Your task to perform on an android device: open app "LinkedIn" (install if not already installed) and go to login screen Image 0: 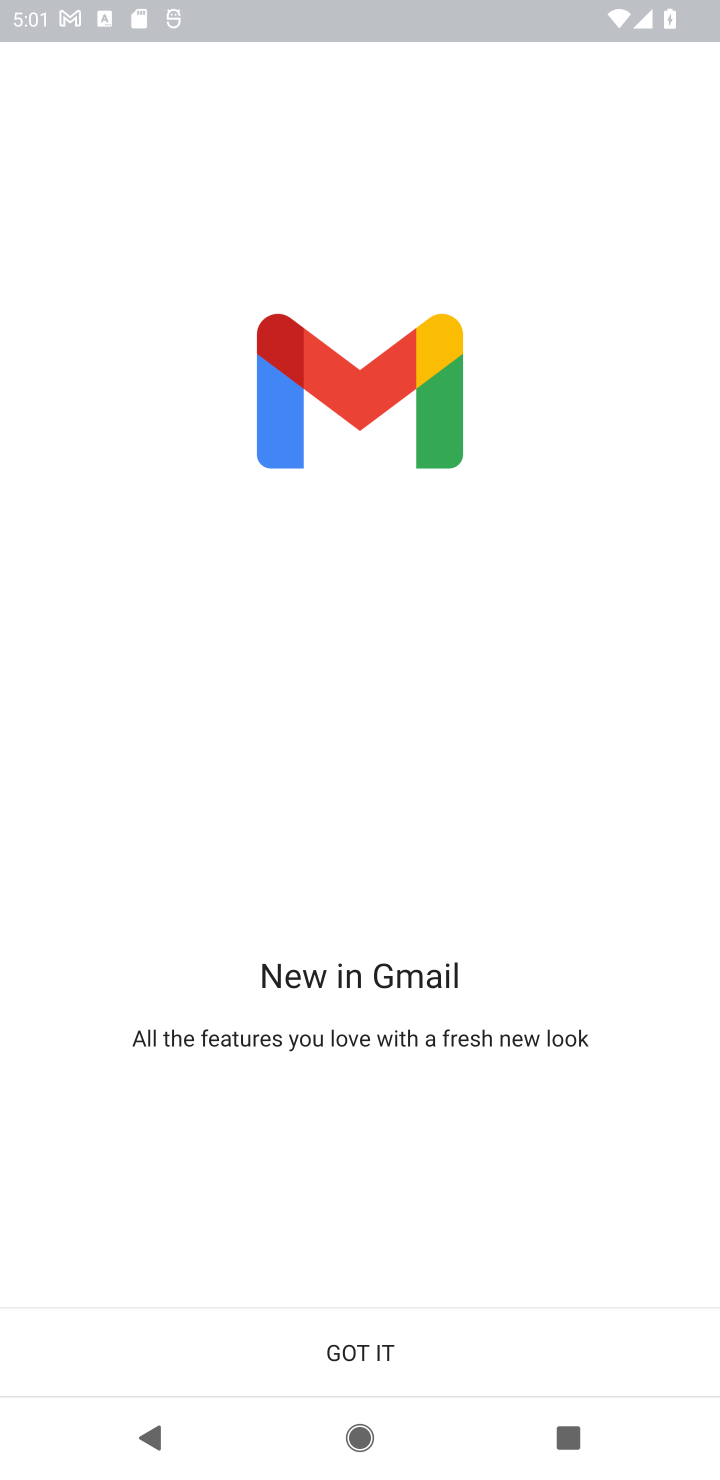
Step 0: press home button
Your task to perform on an android device: open app "LinkedIn" (install if not already installed) and go to login screen Image 1: 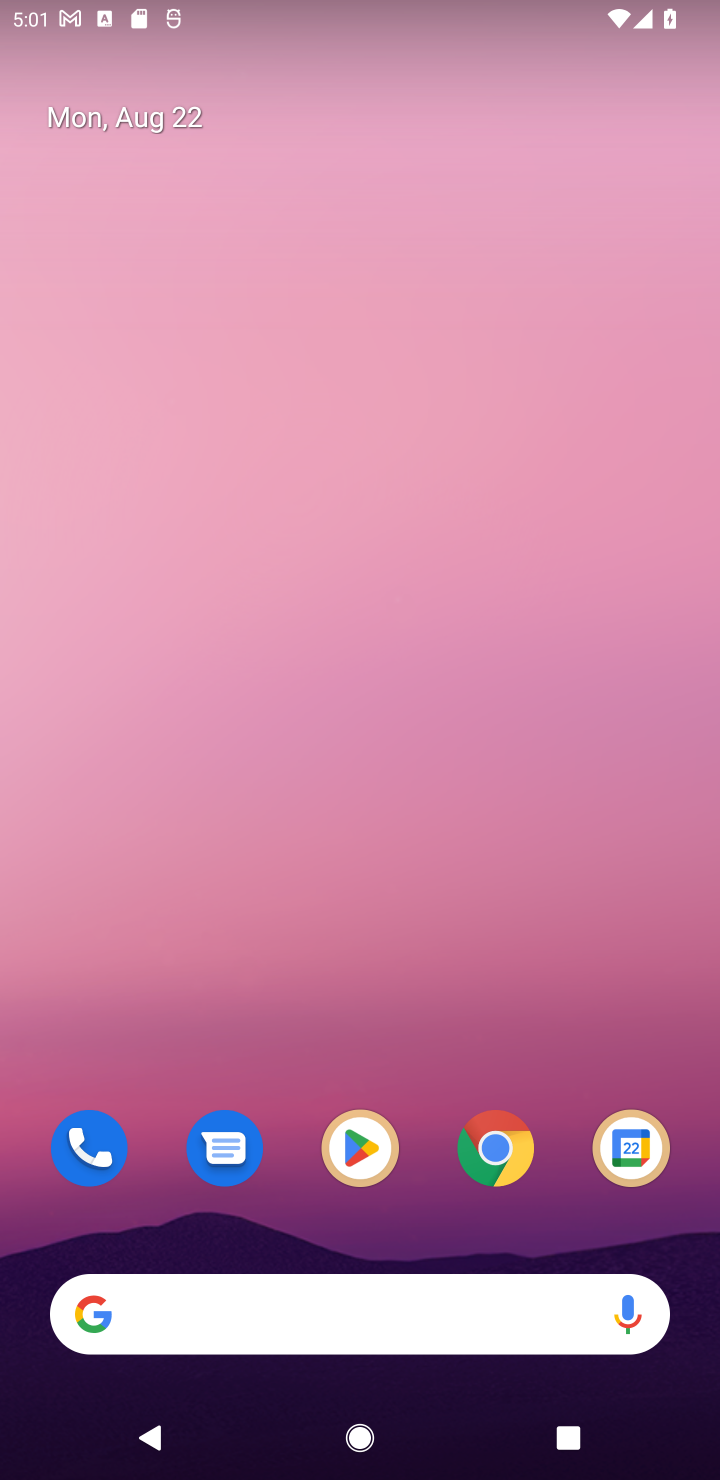
Step 1: click (359, 1162)
Your task to perform on an android device: open app "LinkedIn" (install if not already installed) and go to login screen Image 2: 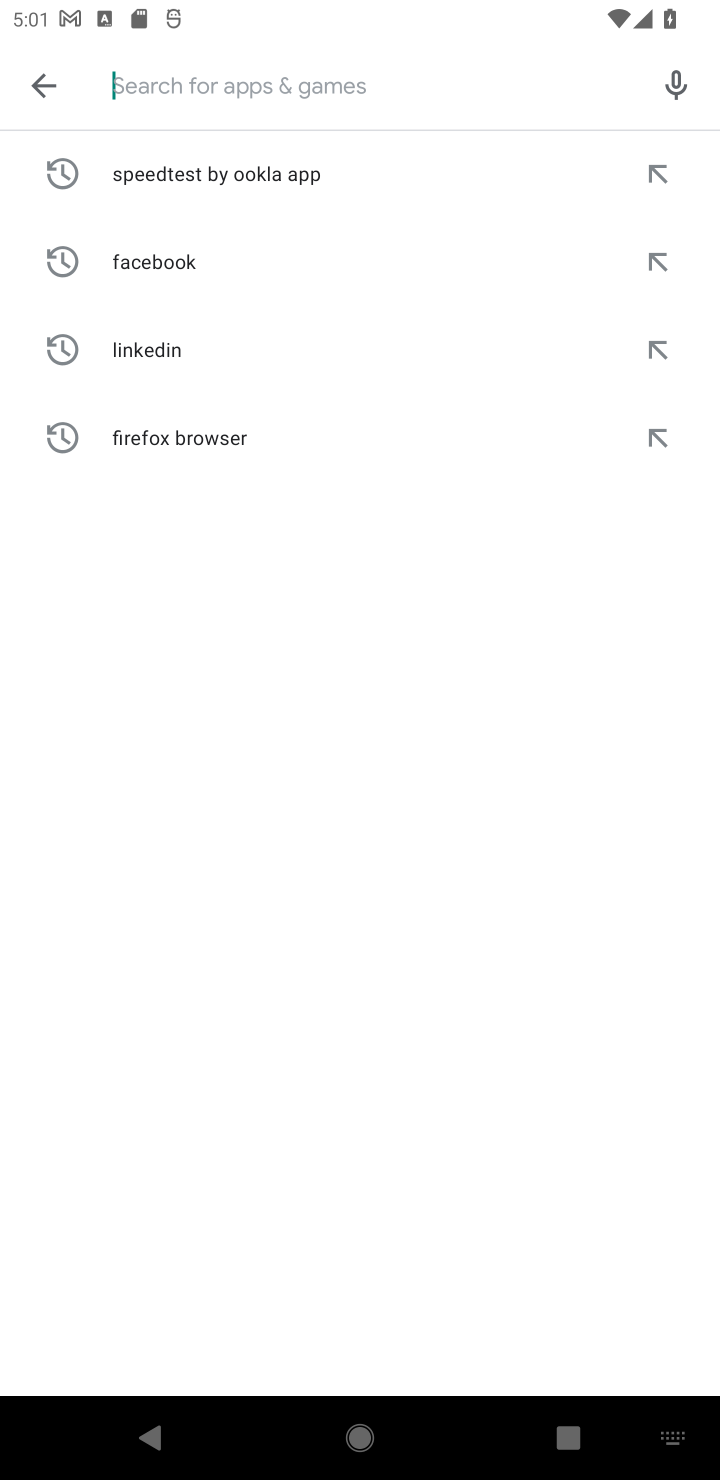
Step 2: type "Chime – Mobile Banking"
Your task to perform on an android device: open app "LinkedIn" (install if not already installed) and go to login screen Image 3: 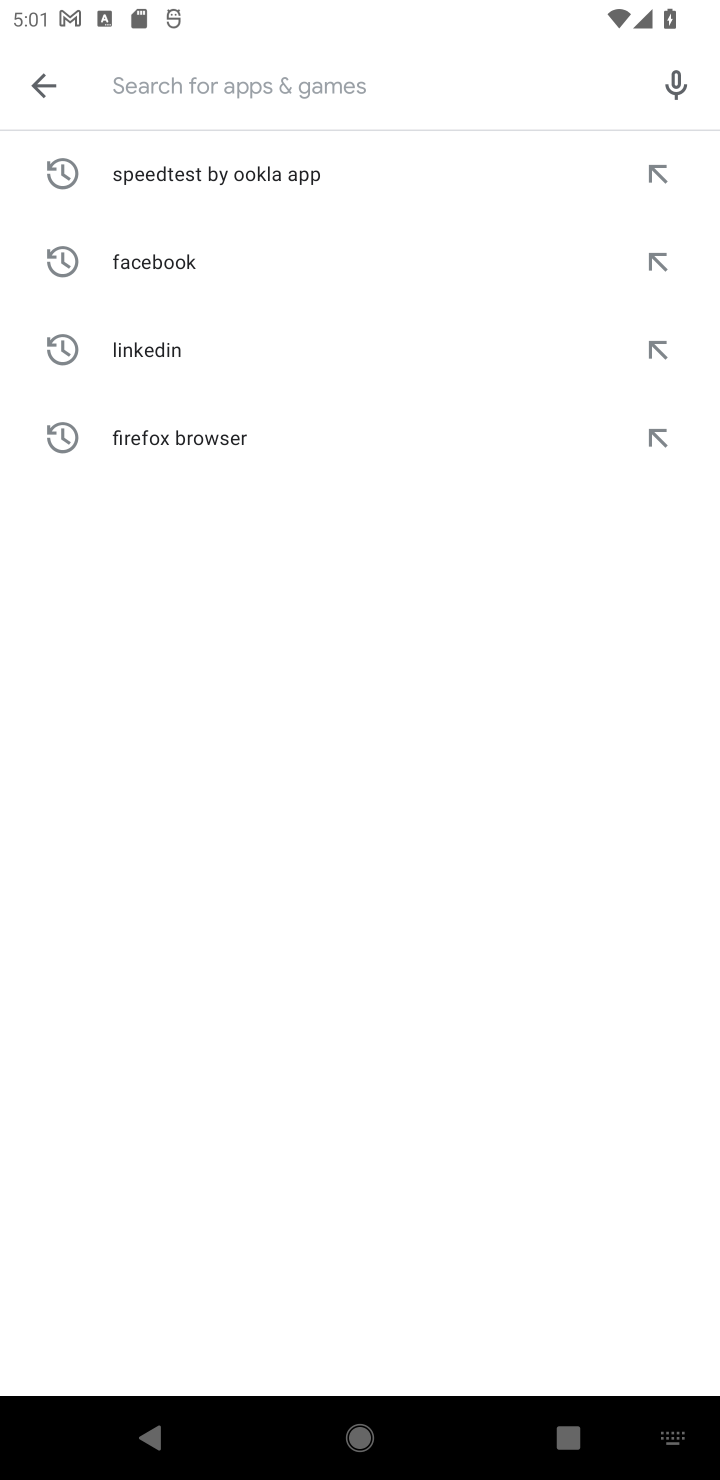
Step 3: click (243, 75)
Your task to perform on an android device: open app "LinkedIn" (install if not already installed) and go to login screen Image 4: 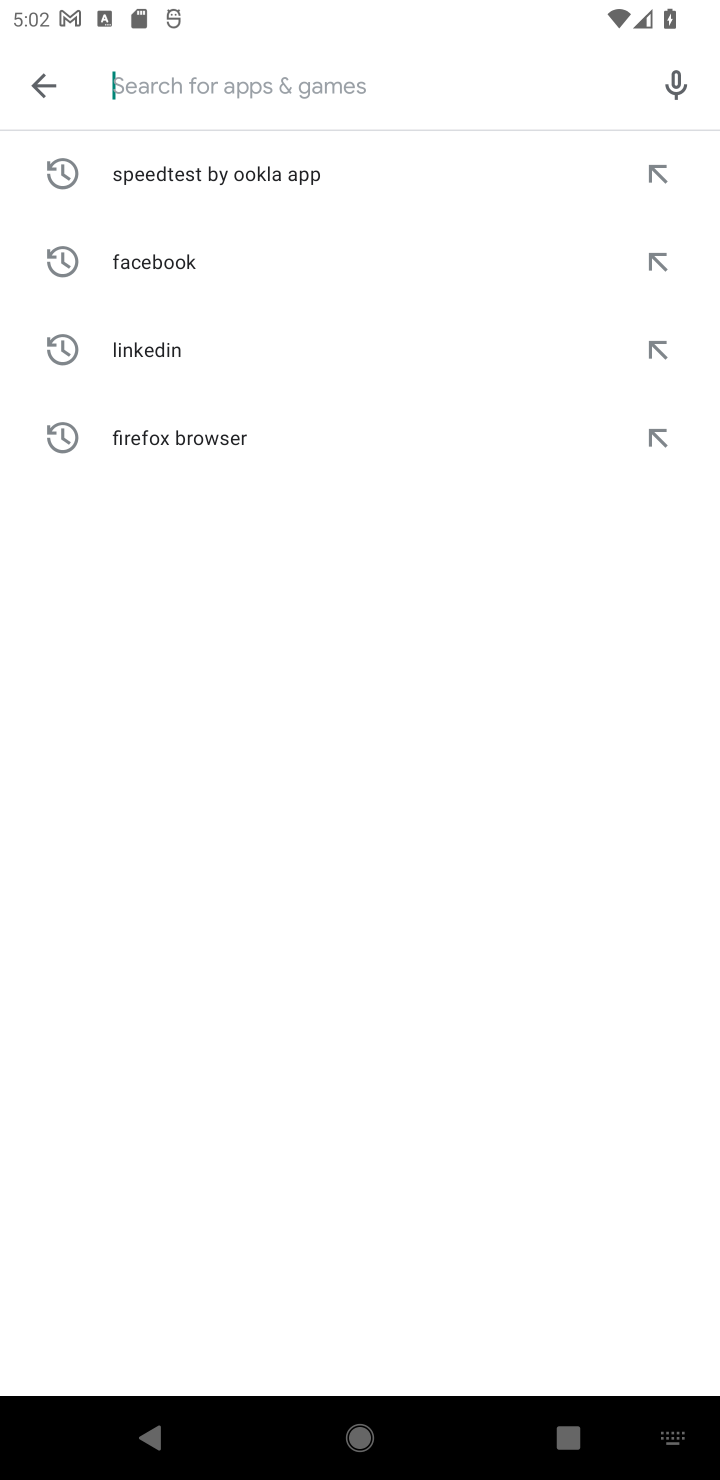
Step 4: type "Linkedin"
Your task to perform on an android device: open app "LinkedIn" (install if not already installed) and go to login screen Image 5: 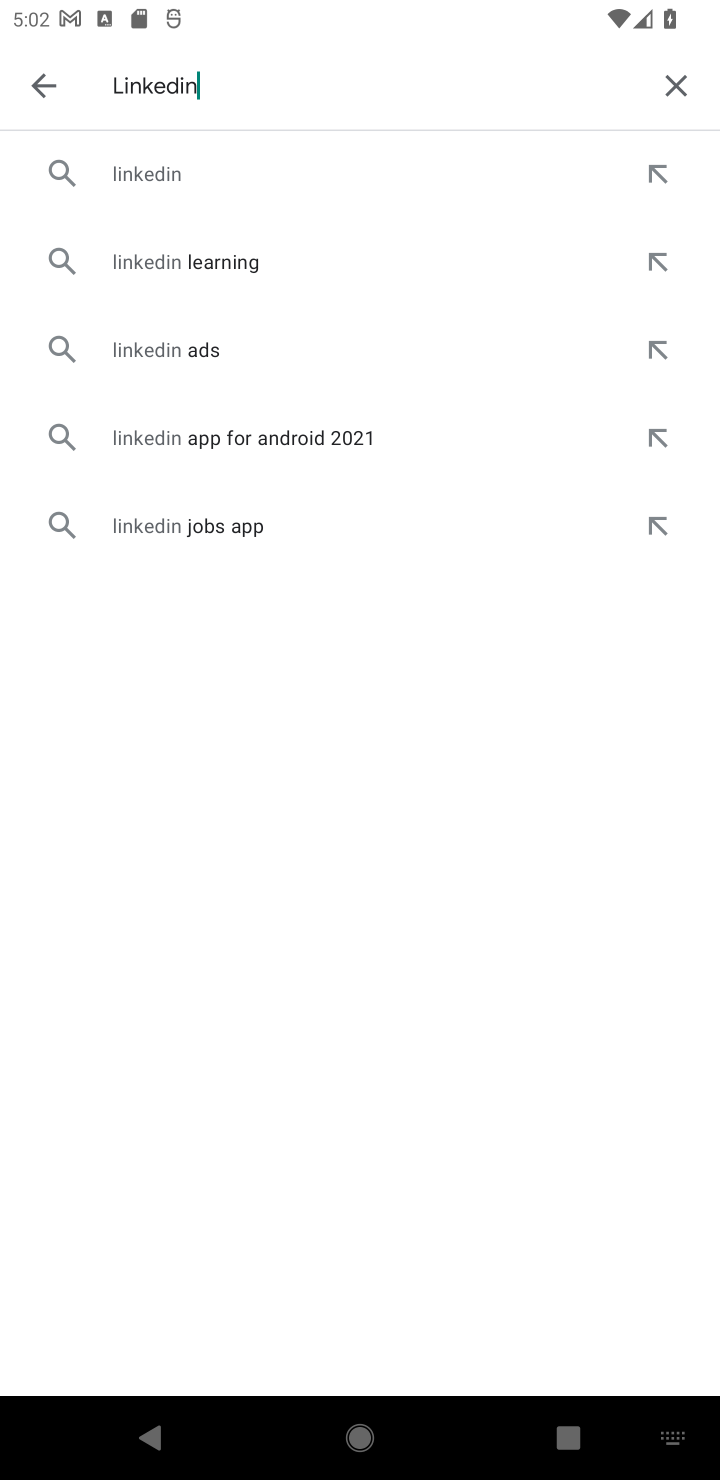
Step 5: click (154, 162)
Your task to perform on an android device: open app "LinkedIn" (install if not already installed) and go to login screen Image 6: 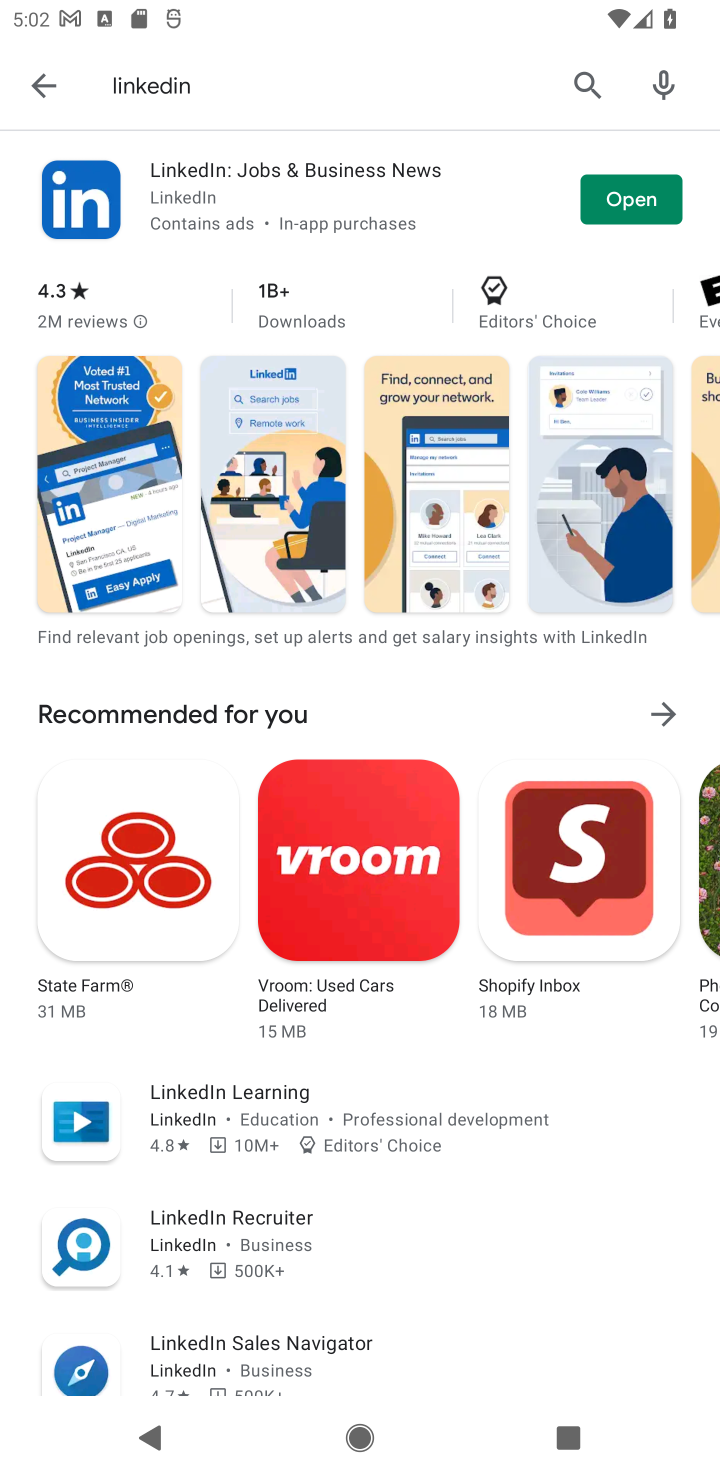
Step 6: click (627, 201)
Your task to perform on an android device: open app "LinkedIn" (install if not already installed) and go to login screen Image 7: 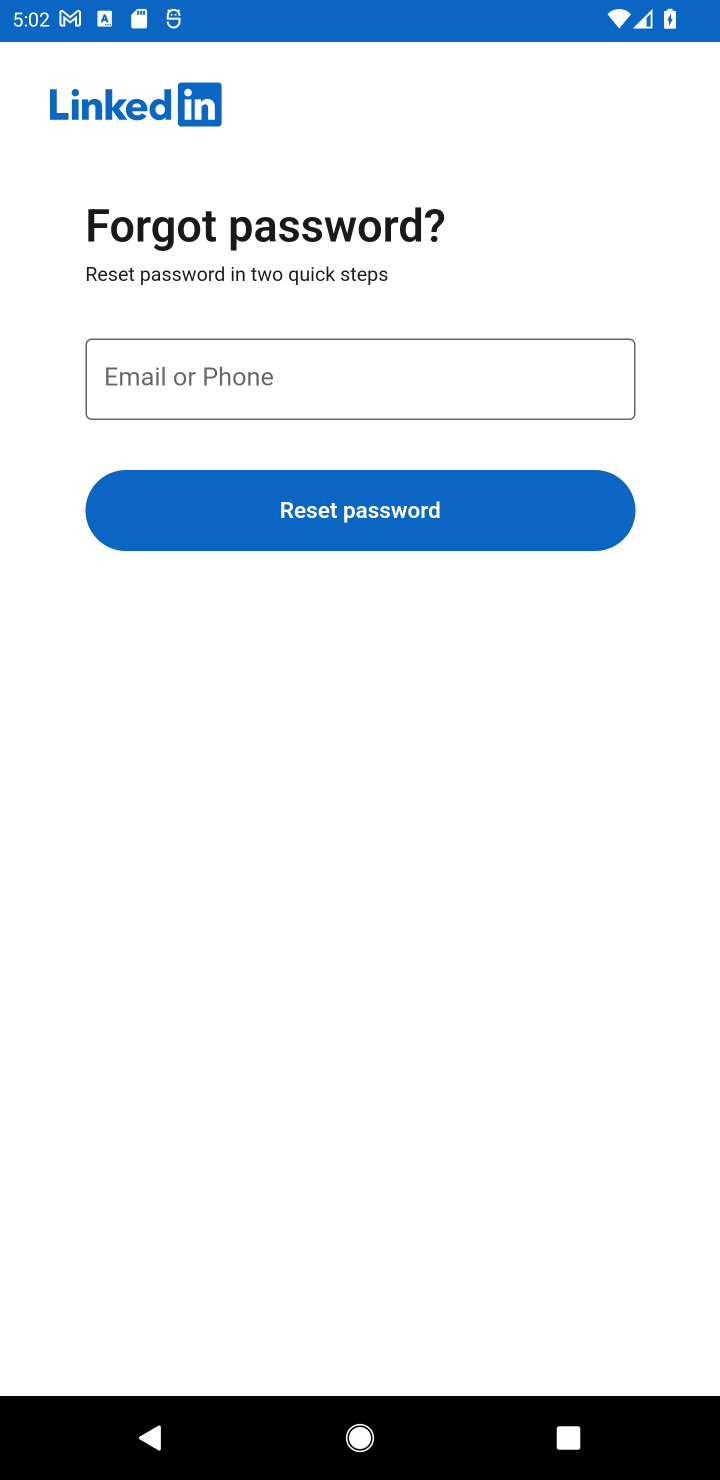
Step 7: task complete